Your task to perform on an android device: Search for vegetarian restaurants on Maps Image 0: 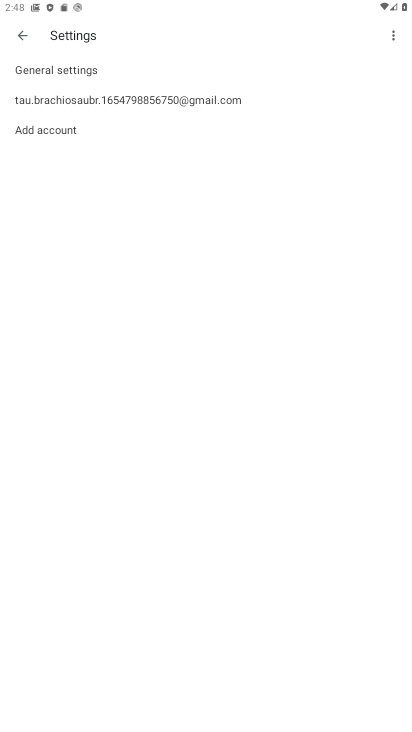
Step 0: press home button
Your task to perform on an android device: Search for vegetarian restaurants on Maps Image 1: 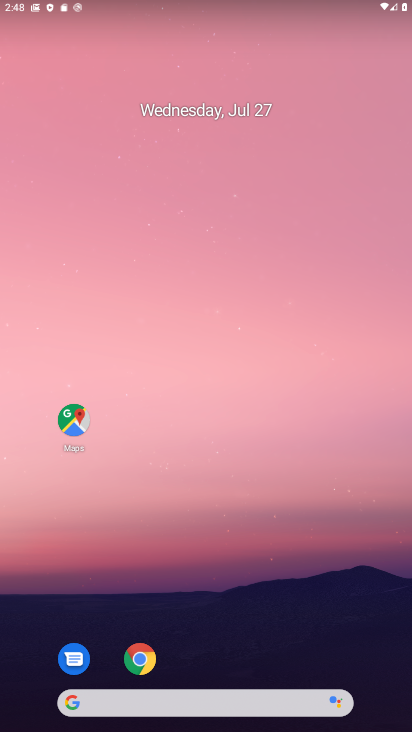
Step 1: drag from (152, 696) to (160, 293)
Your task to perform on an android device: Search for vegetarian restaurants on Maps Image 2: 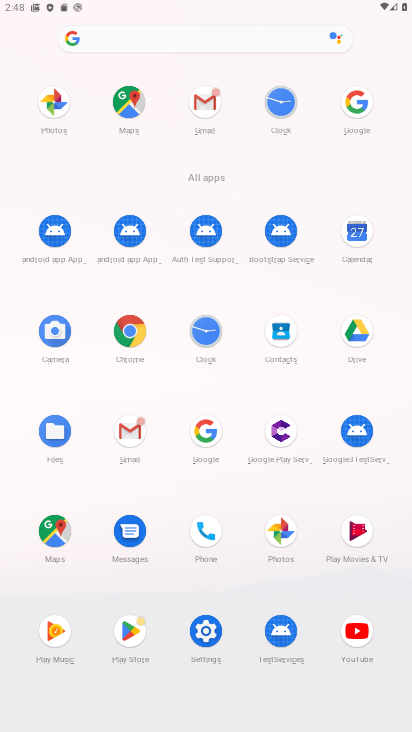
Step 2: click (55, 522)
Your task to perform on an android device: Search for vegetarian restaurants on Maps Image 3: 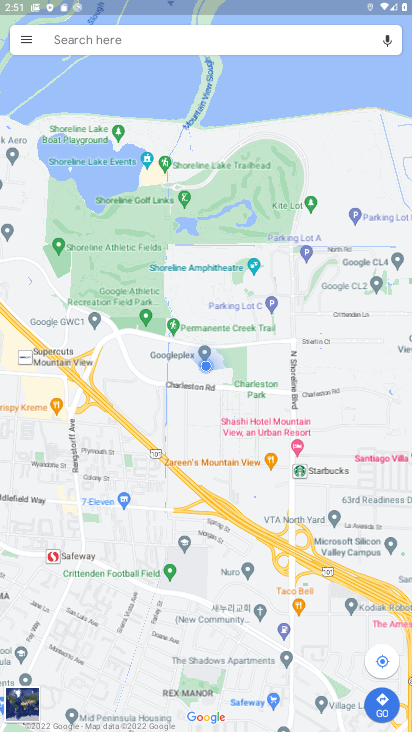
Step 3: click (129, 37)
Your task to perform on an android device: Search for vegetarian restaurants on Maps Image 4: 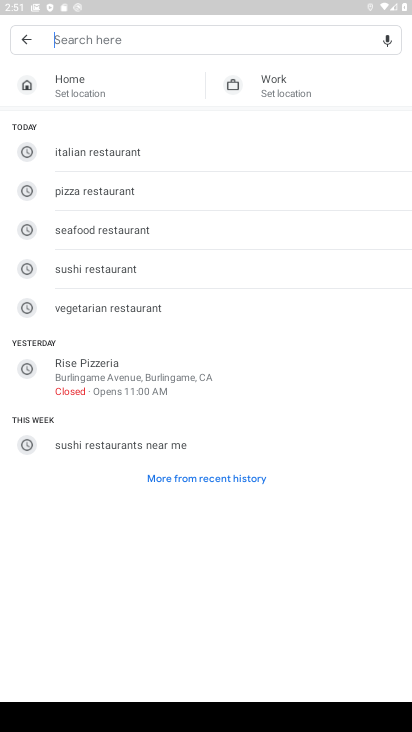
Step 4: click (98, 306)
Your task to perform on an android device: Search for vegetarian restaurants on Maps Image 5: 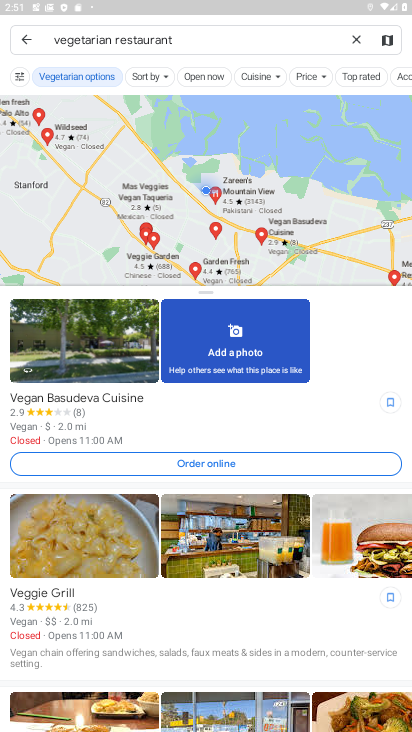
Step 5: task complete